Your task to perform on an android device: empty trash in google photos Image 0: 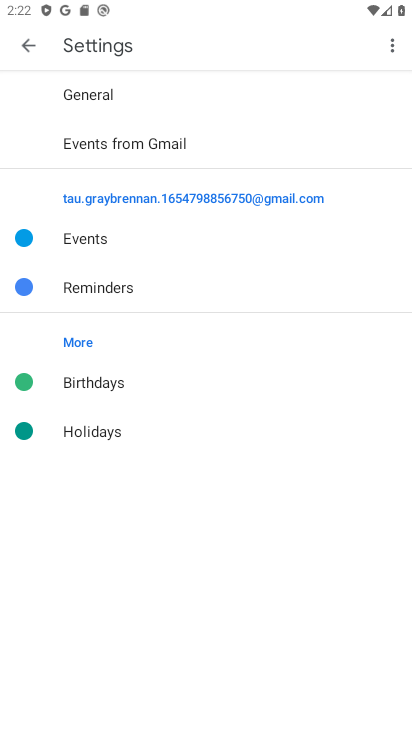
Step 0: press back button
Your task to perform on an android device: empty trash in google photos Image 1: 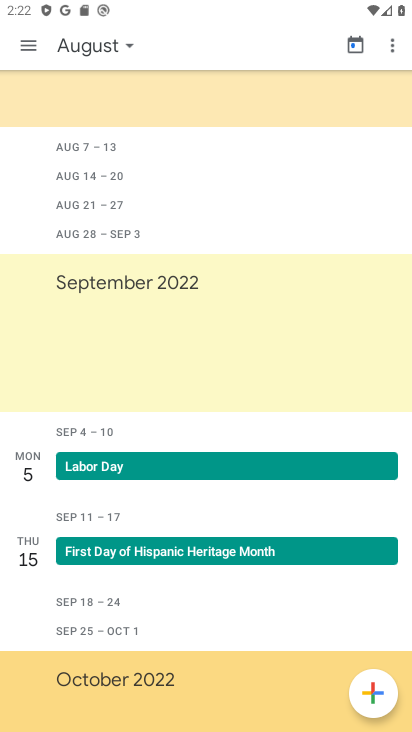
Step 1: drag from (186, 623) to (184, 201)
Your task to perform on an android device: empty trash in google photos Image 2: 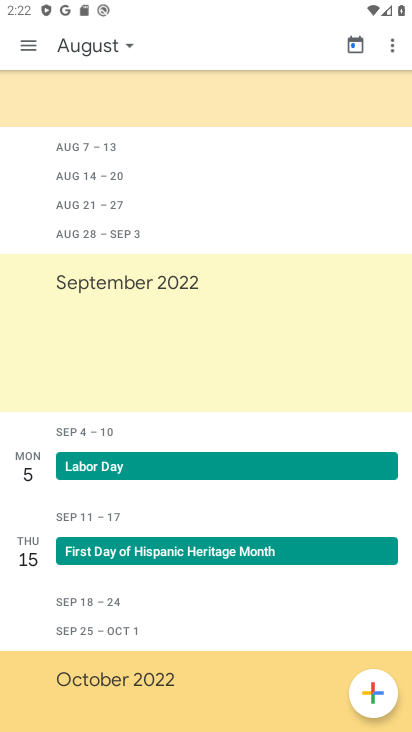
Step 2: press home button
Your task to perform on an android device: empty trash in google photos Image 3: 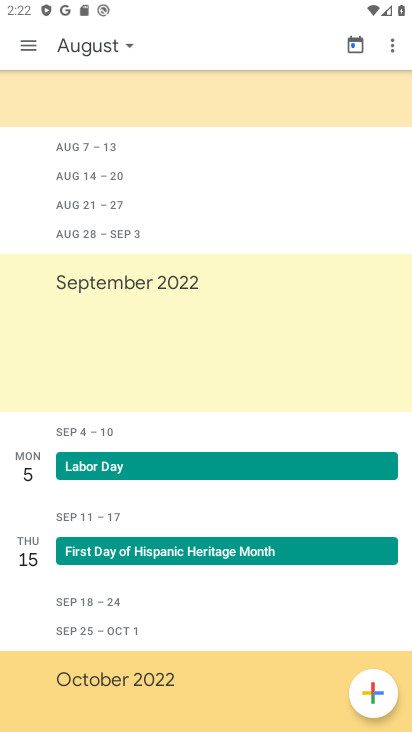
Step 3: press back button
Your task to perform on an android device: empty trash in google photos Image 4: 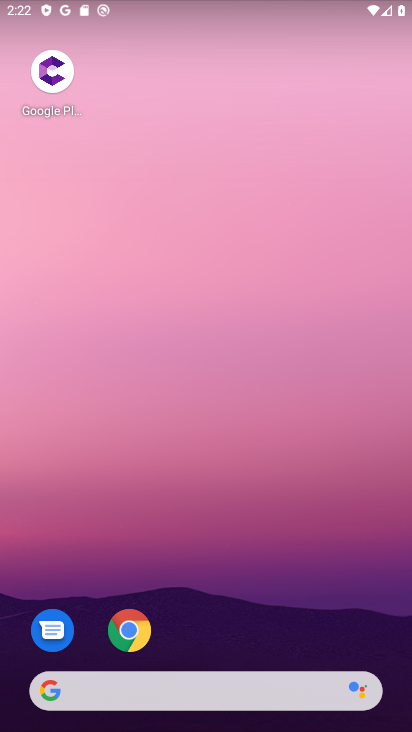
Step 4: drag from (246, 583) to (246, 226)
Your task to perform on an android device: empty trash in google photos Image 5: 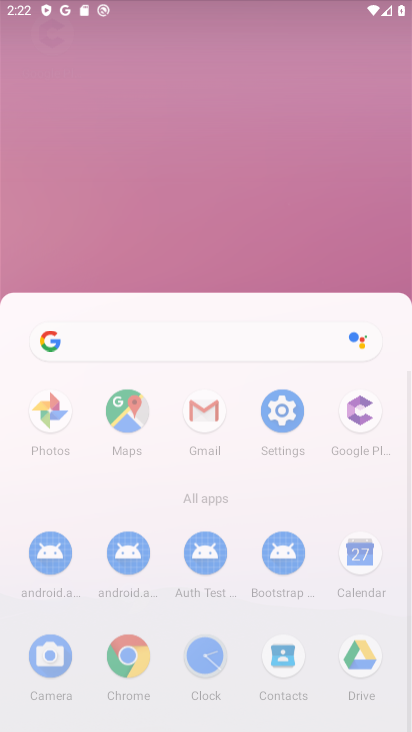
Step 5: drag from (310, 548) to (252, 223)
Your task to perform on an android device: empty trash in google photos Image 6: 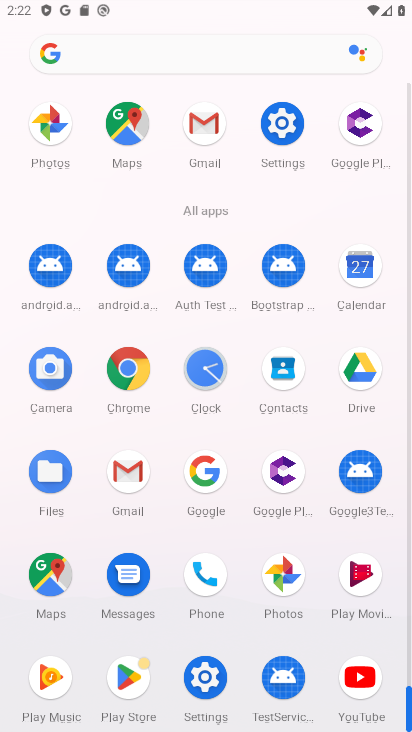
Step 6: drag from (265, 564) to (177, 105)
Your task to perform on an android device: empty trash in google photos Image 7: 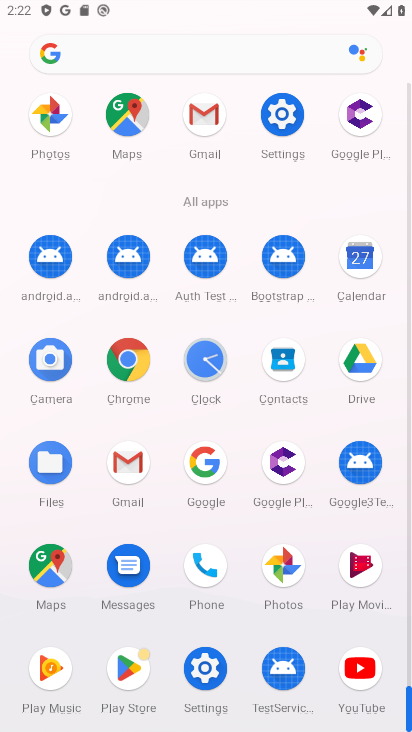
Step 7: click (286, 550)
Your task to perform on an android device: empty trash in google photos Image 8: 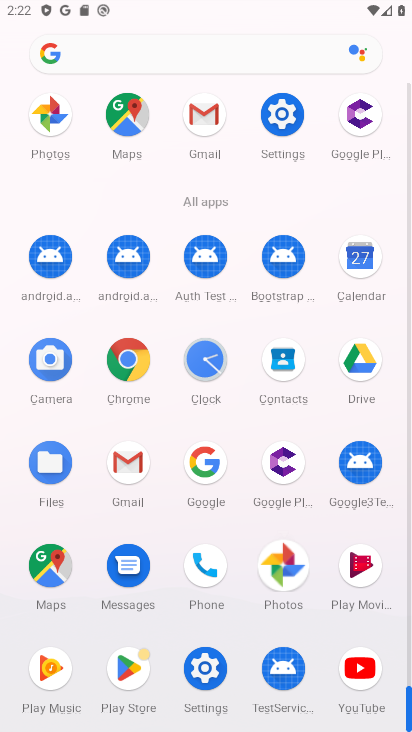
Step 8: click (288, 549)
Your task to perform on an android device: empty trash in google photos Image 9: 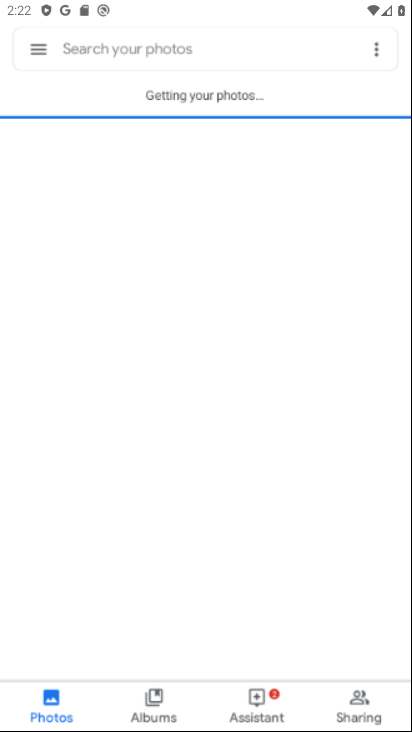
Step 9: click (283, 548)
Your task to perform on an android device: empty trash in google photos Image 10: 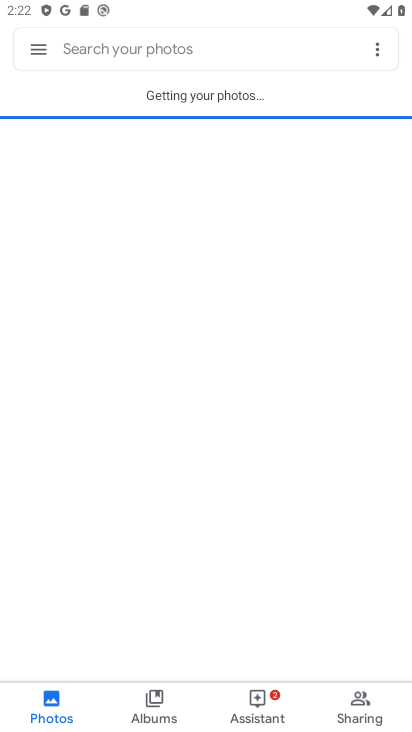
Step 10: click (41, 44)
Your task to perform on an android device: empty trash in google photos Image 11: 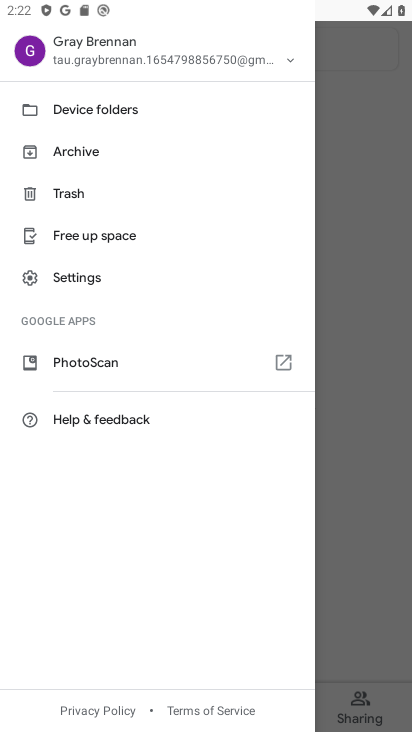
Step 11: click (75, 188)
Your task to perform on an android device: empty trash in google photos Image 12: 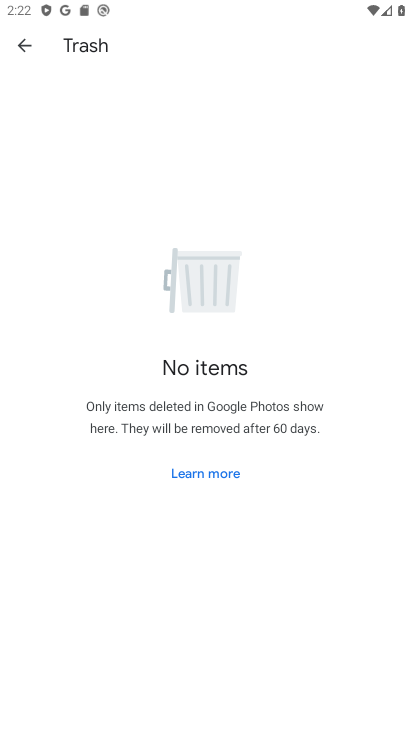
Step 12: task complete